Your task to perform on an android device: Open eBay Image 0: 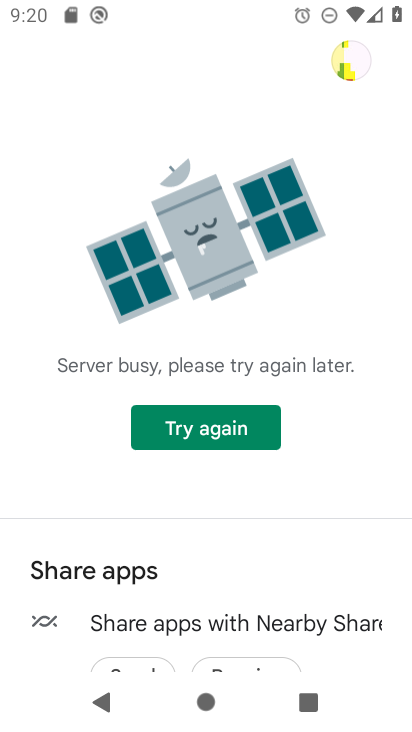
Step 0: press home button
Your task to perform on an android device: Open eBay Image 1: 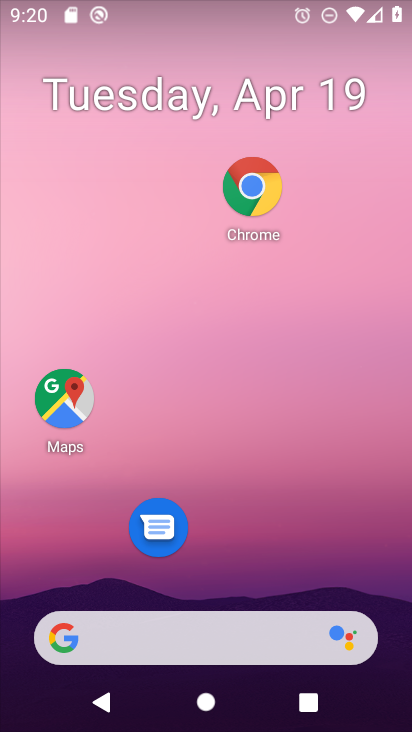
Step 1: drag from (268, 573) to (290, 122)
Your task to perform on an android device: Open eBay Image 2: 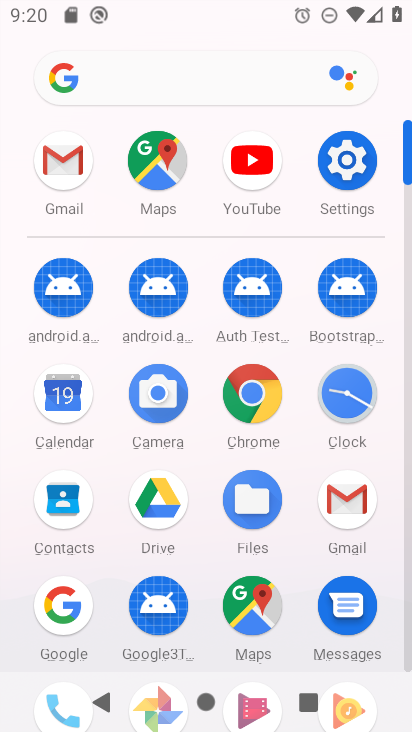
Step 2: click (253, 390)
Your task to perform on an android device: Open eBay Image 3: 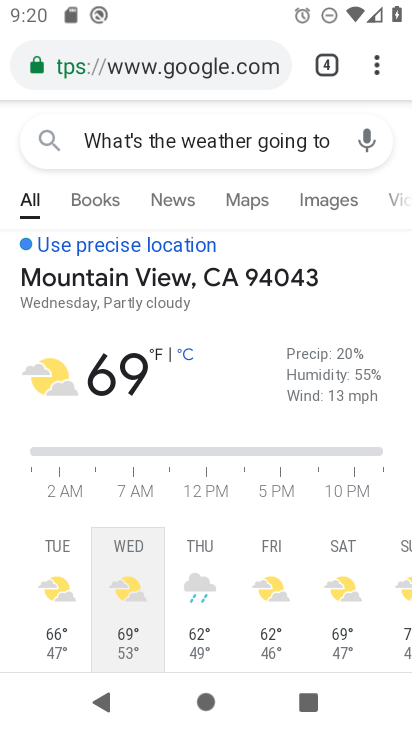
Step 3: click (378, 63)
Your task to perform on an android device: Open eBay Image 4: 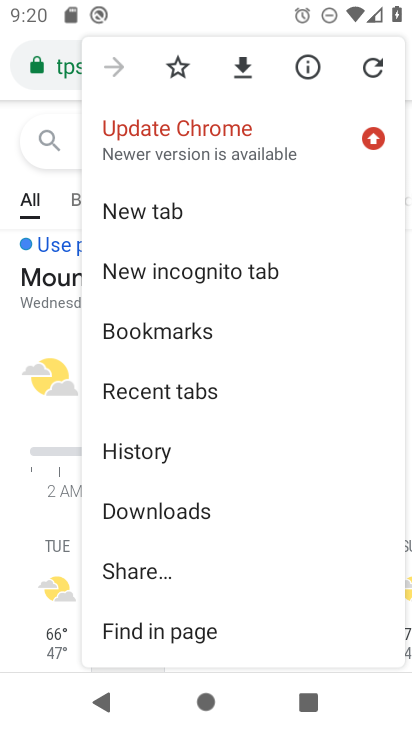
Step 4: click (188, 219)
Your task to perform on an android device: Open eBay Image 5: 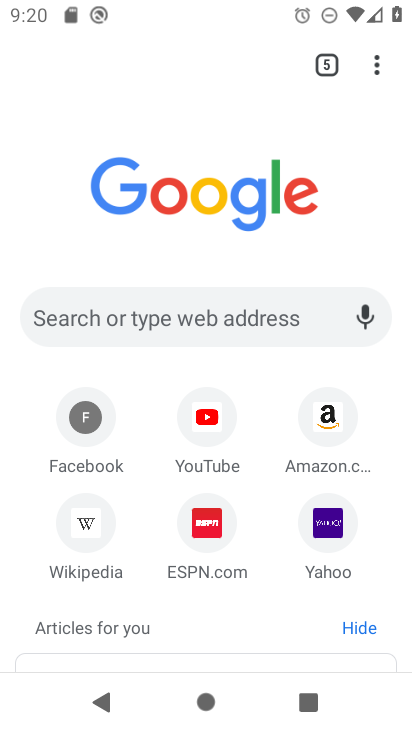
Step 5: click (245, 308)
Your task to perform on an android device: Open eBay Image 6: 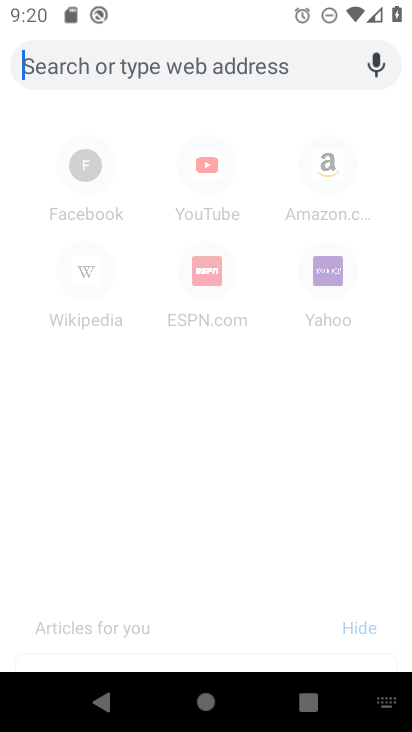
Step 6: type "eBay"
Your task to perform on an android device: Open eBay Image 7: 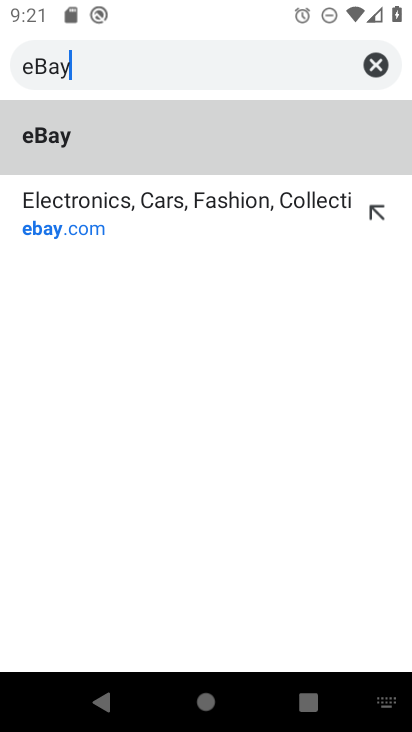
Step 7: click (196, 139)
Your task to perform on an android device: Open eBay Image 8: 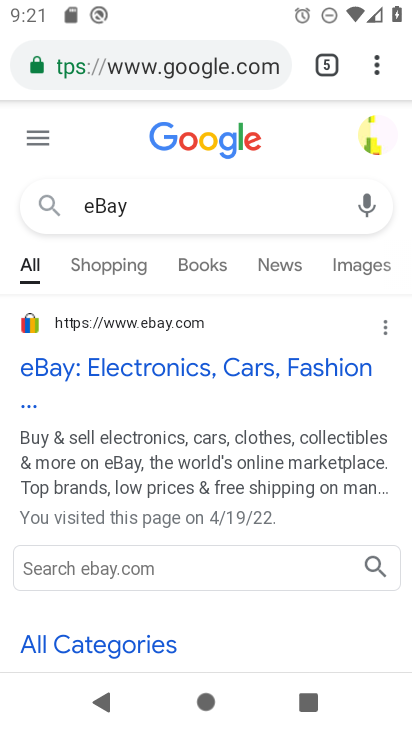
Step 8: task complete